Your task to perform on an android device: turn pop-ups on in chrome Image 0: 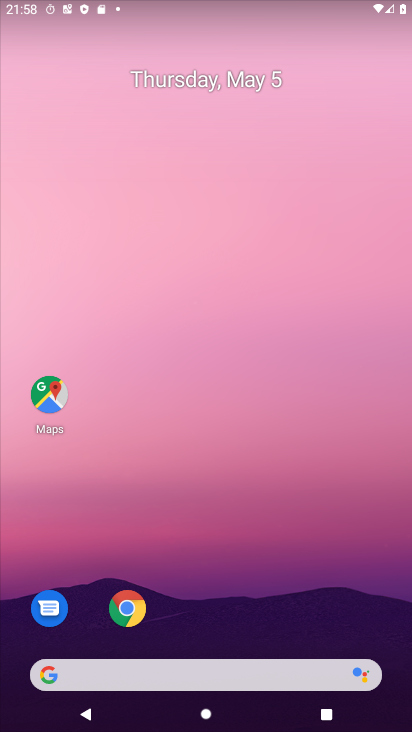
Step 0: drag from (318, 618) to (253, 0)
Your task to perform on an android device: turn pop-ups on in chrome Image 1: 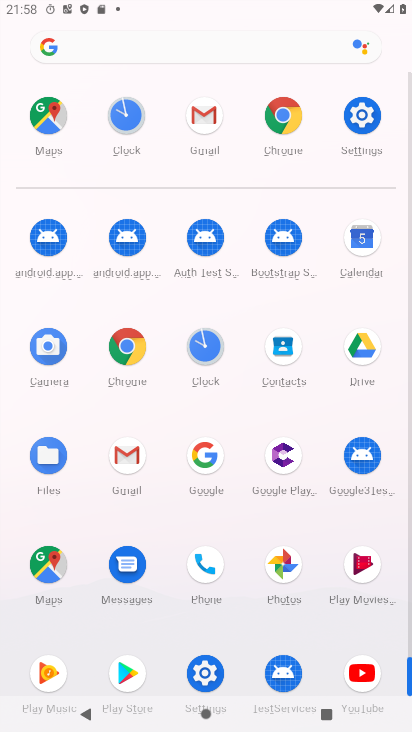
Step 1: click (125, 352)
Your task to perform on an android device: turn pop-ups on in chrome Image 2: 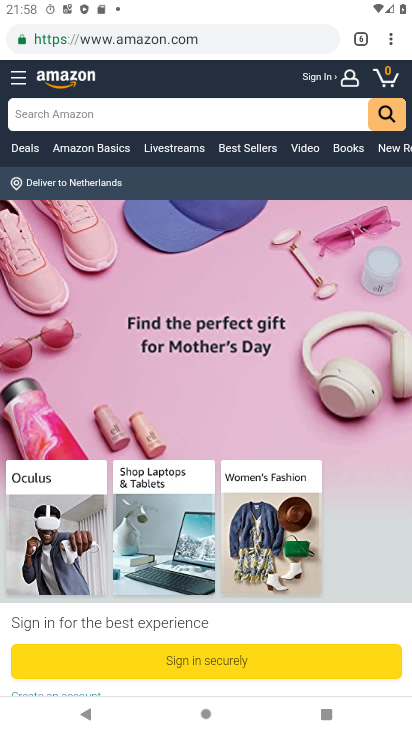
Step 2: click (394, 30)
Your task to perform on an android device: turn pop-ups on in chrome Image 3: 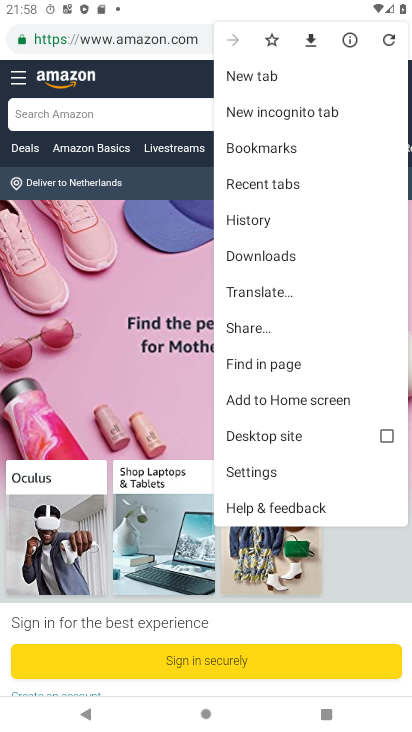
Step 3: click (273, 474)
Your task to perform on an android device: turn pop-ups on in chrome Image 4: 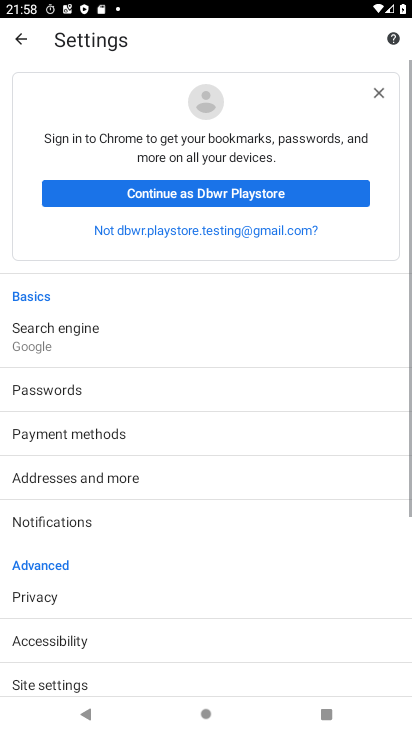
Step 4: drag from (157, 657) to (110, 272)
Your task to perform on an android device: turn pop-ups on in chrome Image 5: 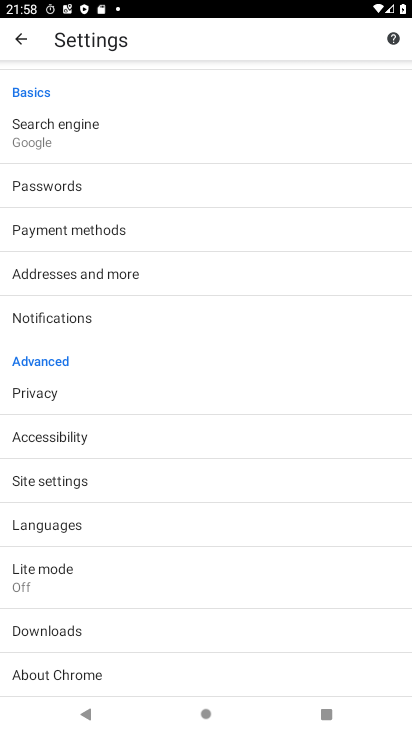
Step 5: click (103, 488)
Your task to perform on an android device: turn pop-ups on in chrome Image 6: 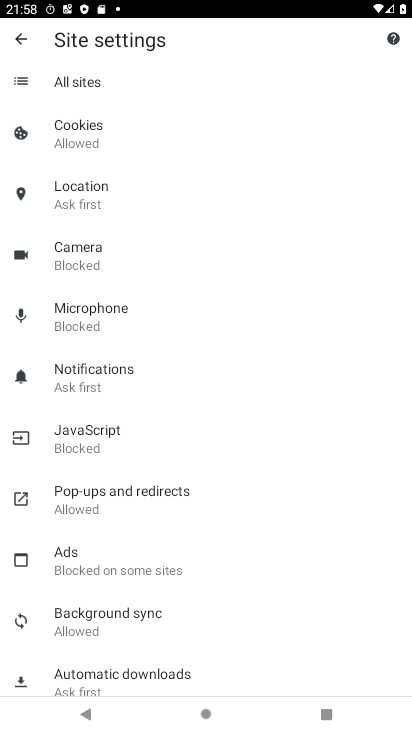
Step 6: click (145, 494)
Your task to perform on an android device: turn pop-ups on in chrome Image 7: 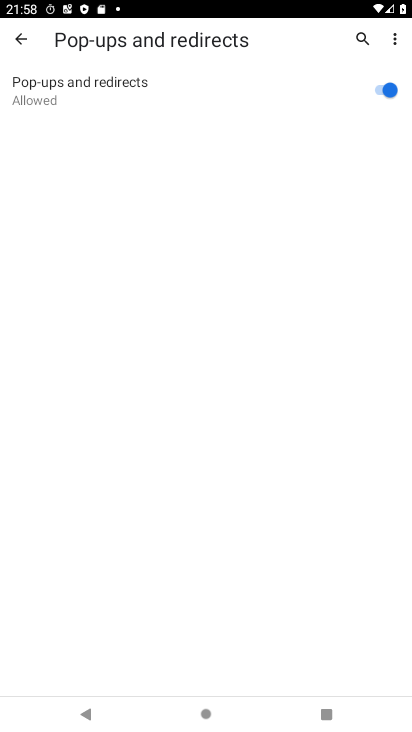
Step 7: task complete